Your task to perform on an android device: Open privacy settings Image 0: 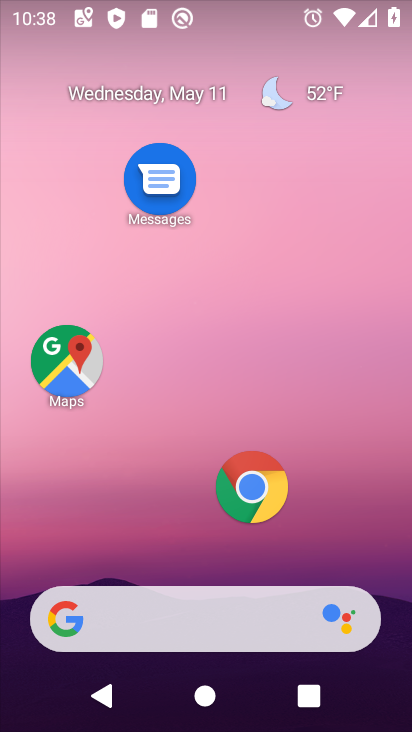
Step 0: click (248, 513)
Your task to perform on an android device: Open privacy settings Image 1: 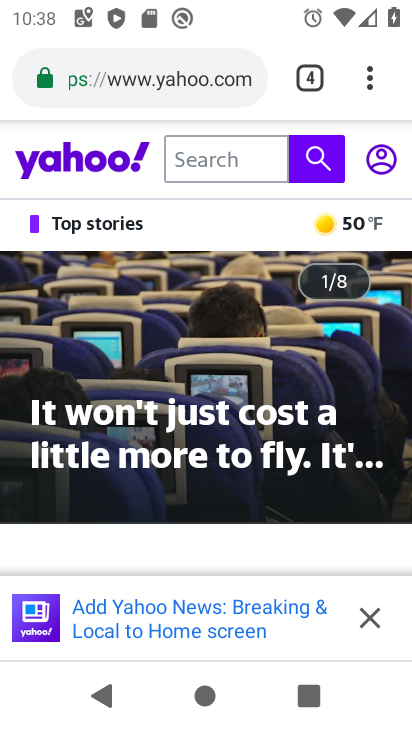
Step 1: drag from (370, 84) to (101, 555)
Your task to perform on an android device: Open privacy settings Image 2: 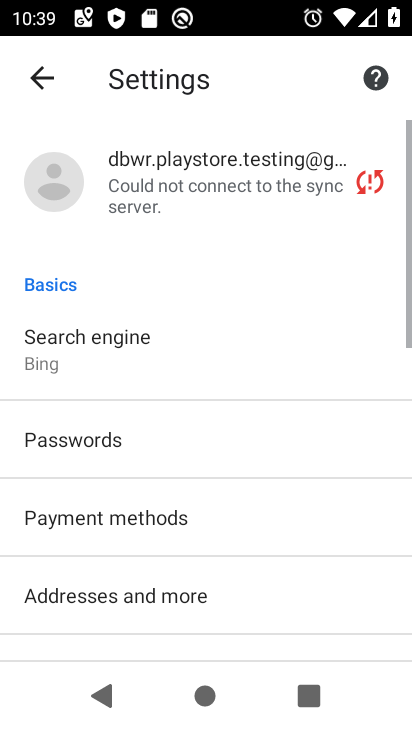
Step 2: drag from (101, 554) to (229, 225)
Your task to perform on an android device: Open privacy settings Image 3: 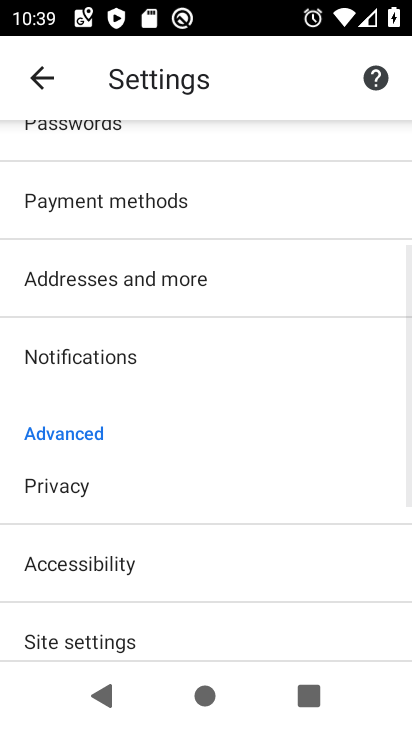
Step 3: click (91, 486)
Your task to perform on an android device: Open privacy settings Image 4: 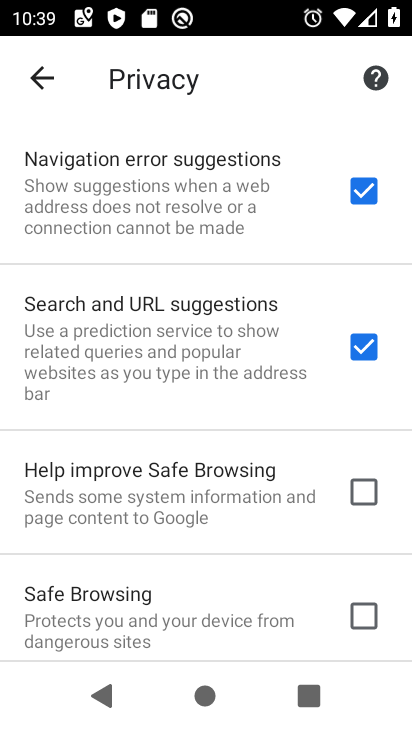
Step 4: task complete